Your task to perform on an android device: turn off improve location accuracy Image 0: 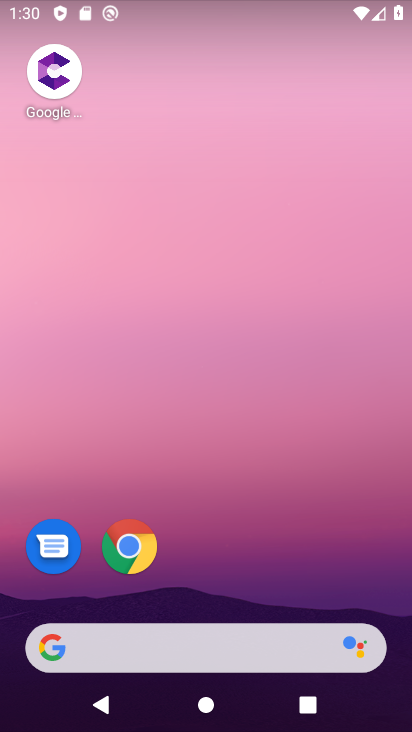
Step 0: drag from (175, 585) to (318, 162)
Your task to perform on an android device: turn off improve location accuracy Image 1: 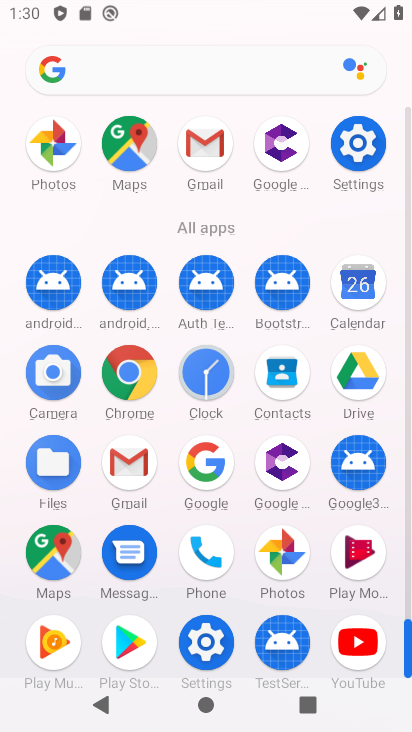
Step 1: drag from (198, 596) to (269, 366)
Your task to perform on an android device: turn off improve location accuracy Image 2: 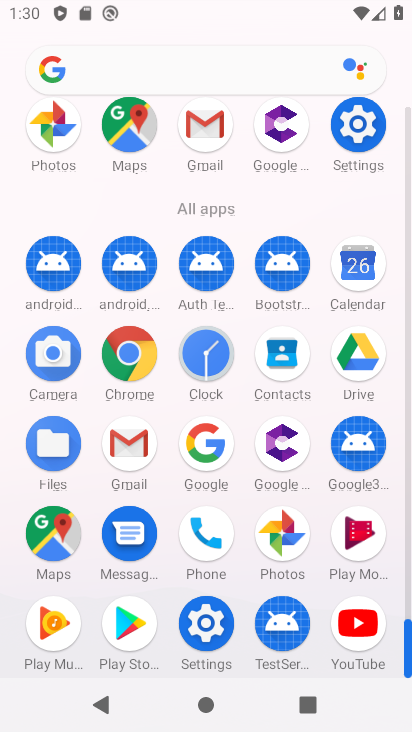
Step 2: click (197, 631)
Your task to perform on an android device: turn off improve location accuracy Image 3: 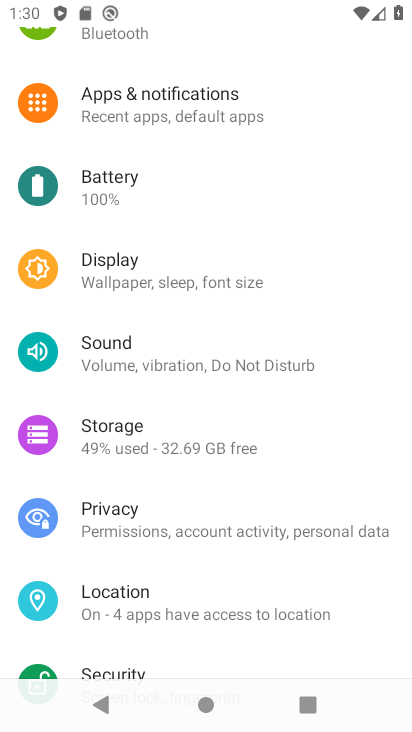
Step 3: click (142, 609)
Your task to perform on an android device: turn off improve location accuracy Image 4: 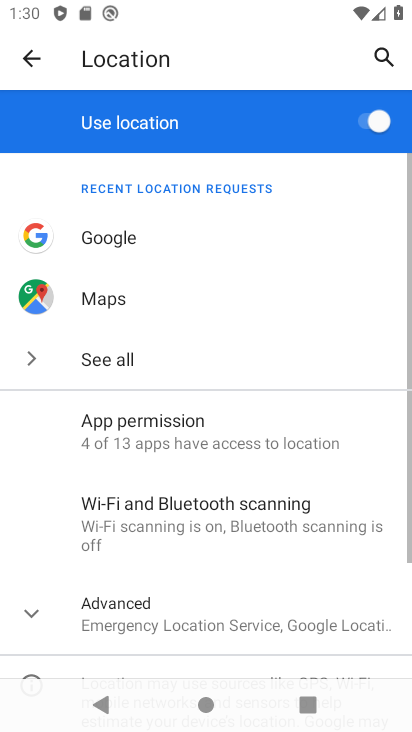
Step 4: drag from (145, 647) to (217, 470)
Your task to perform on an android device: turn off improve location accuracy Image 5: 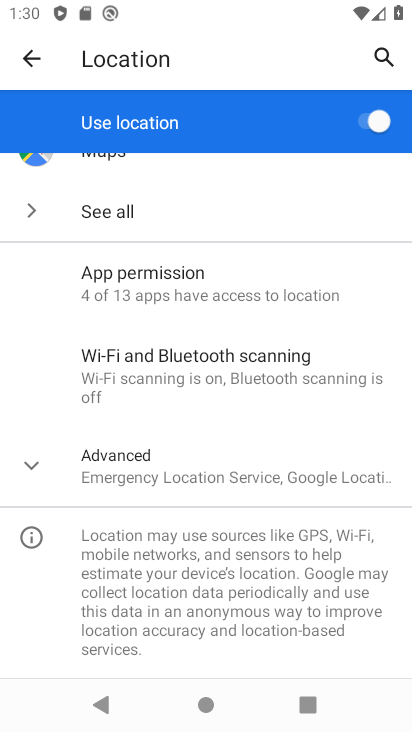
Step 5: click (183, 463)
Your task to perform on an android device: turn off improve location accuracy Image 6: 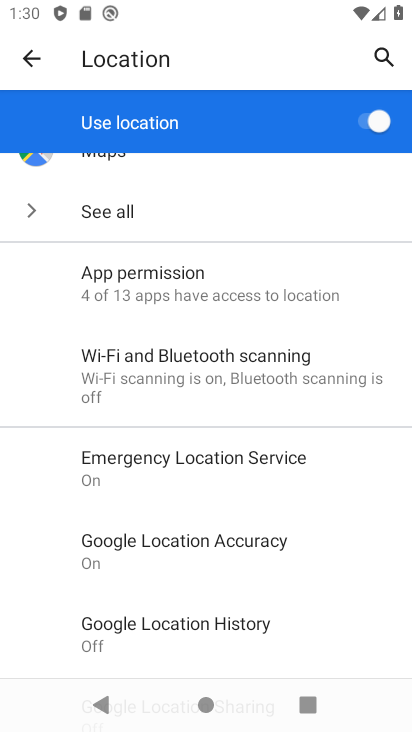
Step 6: drag from (202, 641) to (283, 434)
Your task to perform on an android device: turn off improve location accuracy Image 7: 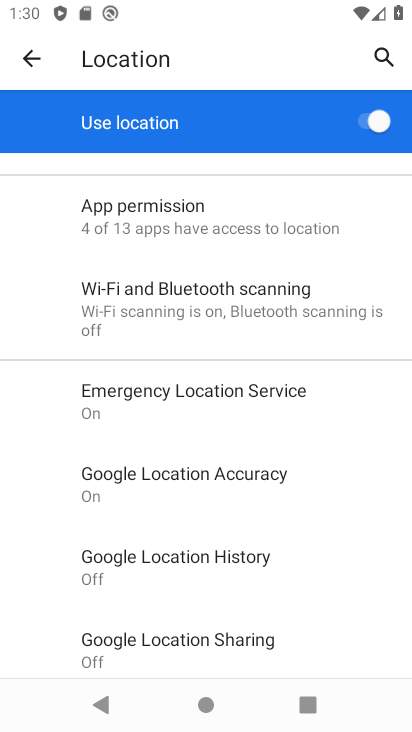
Step 7: click (254, 489)
Your task to perform on an android device: turn off improve location accuracy Image 8: 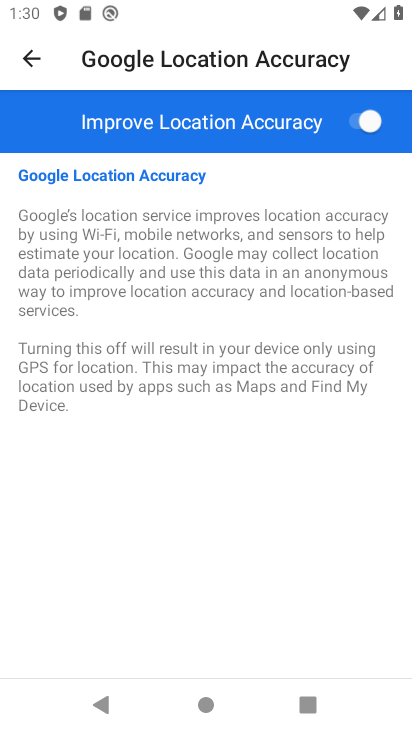
Step 8: click (355, 125)
Your task to perform on an android device: turn off improve location accuracy Image 9: 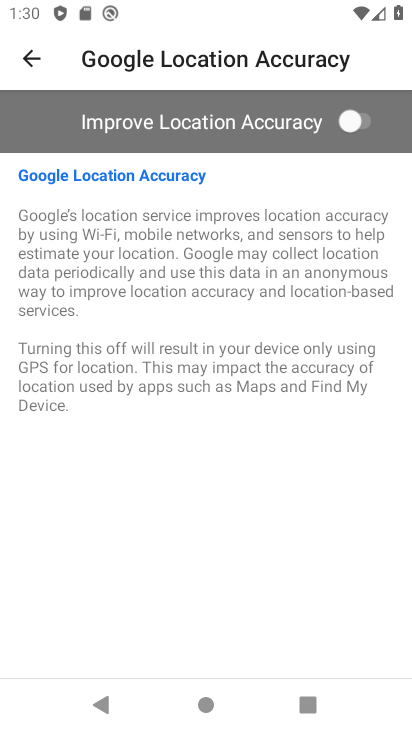
Step 9: task complete